Your task to perform on an android device: Check the news Image 0: 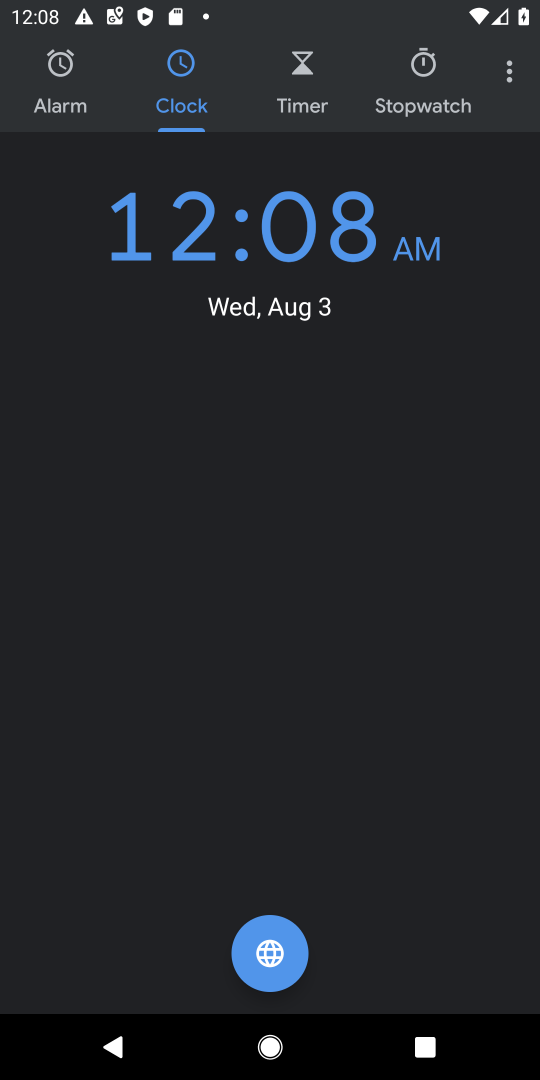
Step 0: press home button
Your task to perform on an android device: Check the news Image 1: 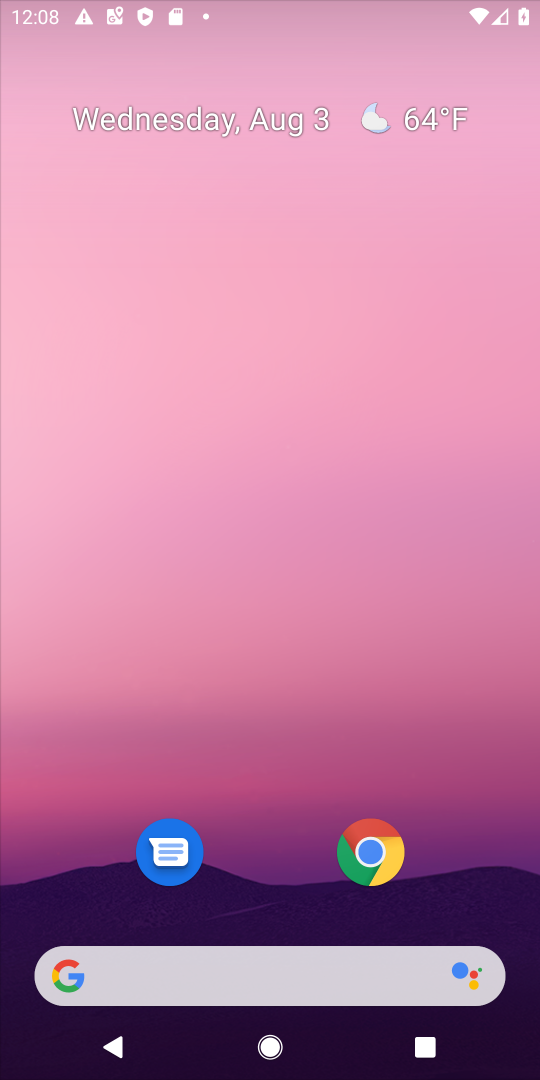
Step 1: drag from (489, 808) to (227, 25)
Your task to perform on an android device: Check the news Image 2: 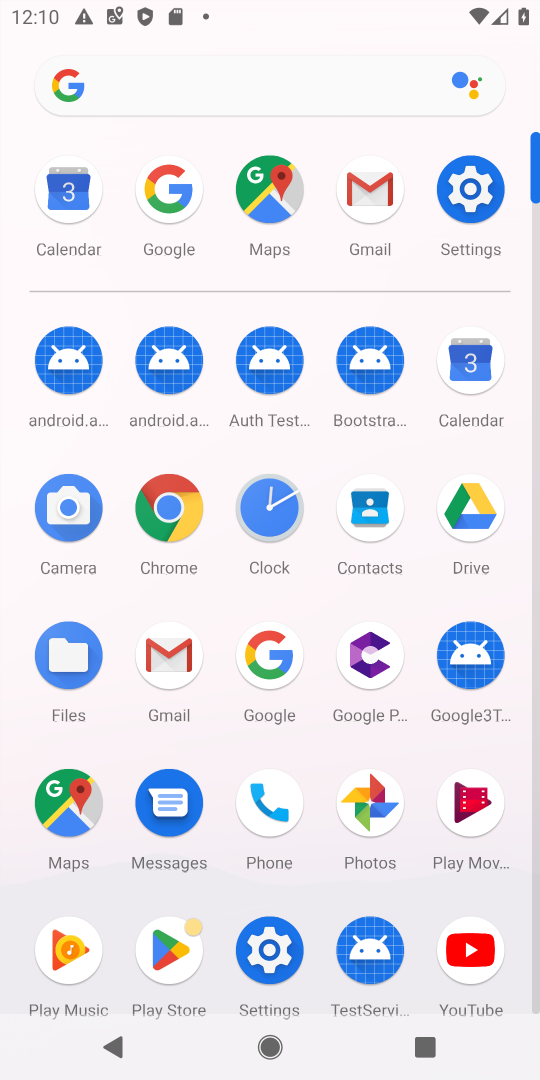
Step 2: click (277, 639)
Your task to perform on an android device: Check the news Image 3: 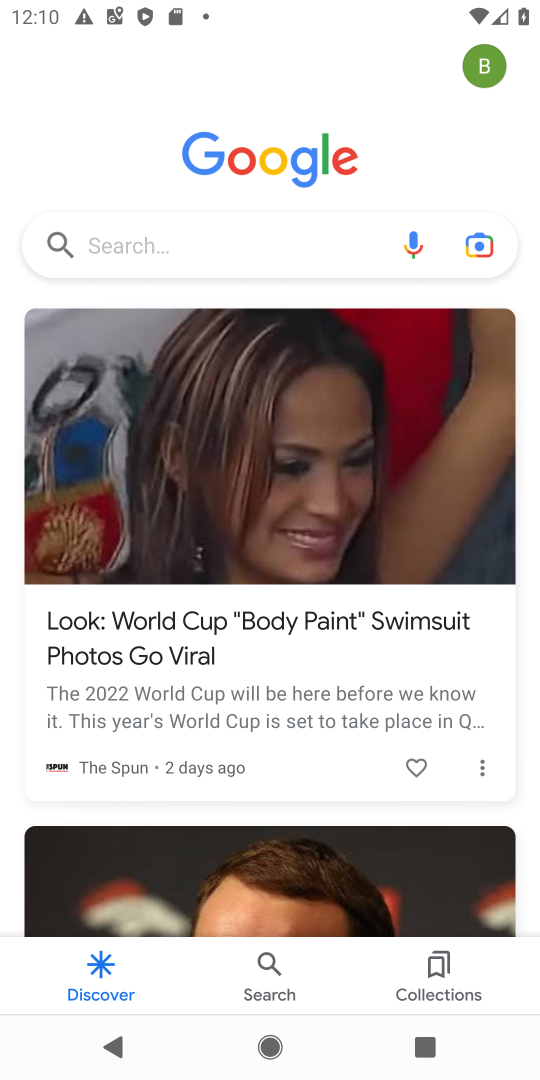
Step 3: click (150, 246)
Your task to perform on an android device: Check the news Image 4: 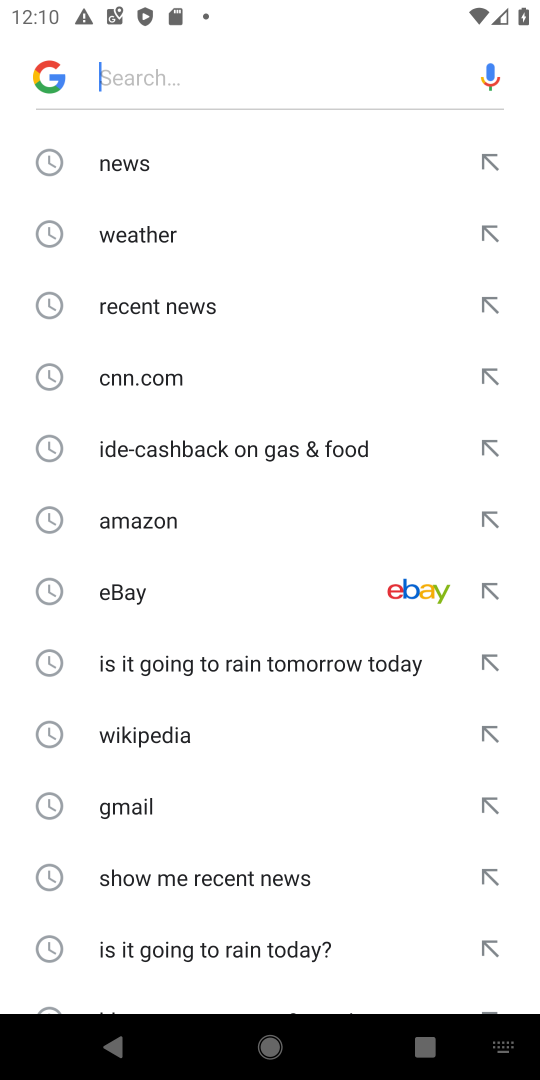
Step 4: click (165, 180)
Your task to perform on an android device: Check the news Image 5: 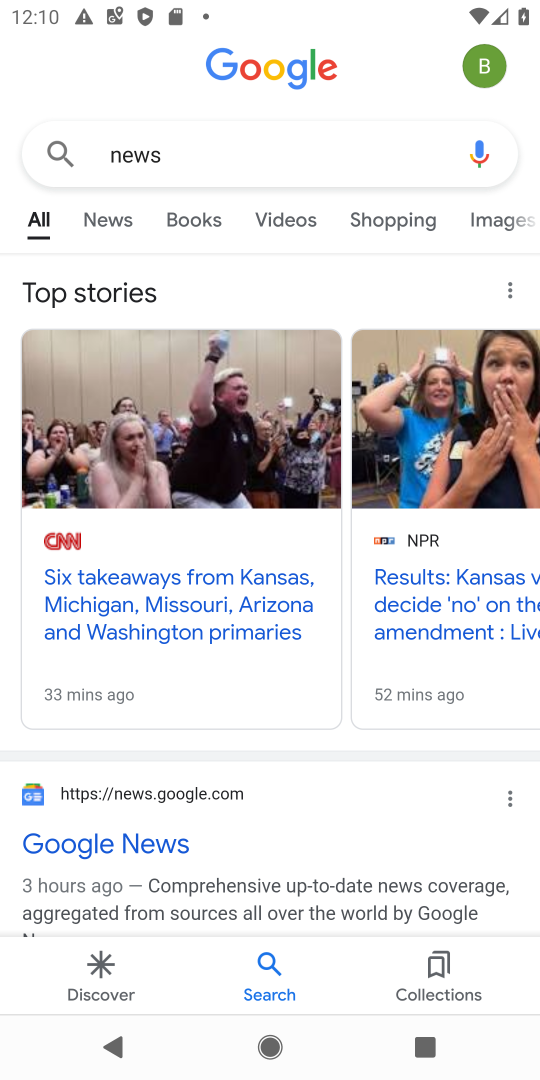
Step 5: task complete